Your task to perform on an android device: see sites visited before in the chrome app Image 0: 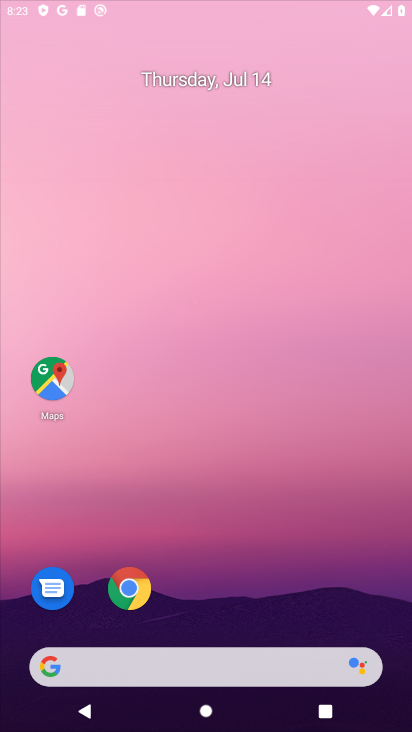
Step 0: click (252, 157)
Your task to perform on an android device: see sites visited before in the chrome app Image 1: 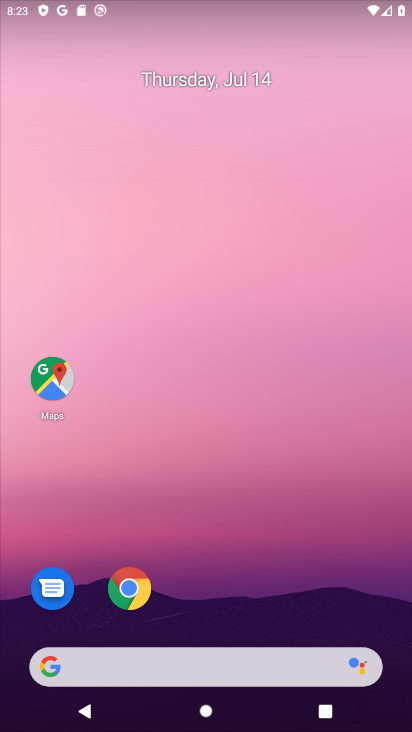
Step 1: drag from (247, 670) to (196, 246)
Your task to perform on an android device: see sites visited before in the chrome app Image 2: 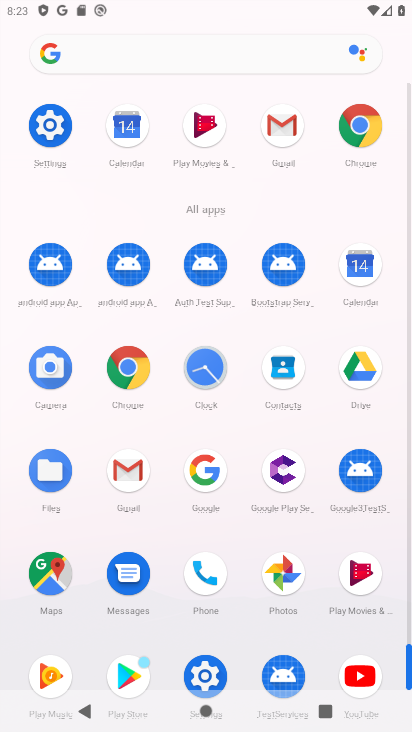
Step 2: click (374, 132)
Your task to perform on an android device: see sites visited before in the chrome app Image 3: 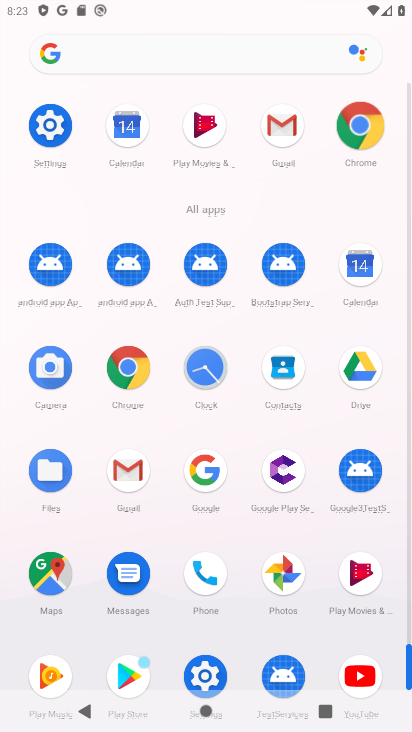
Step 3: click (372, 132)
Your task to perform on an android device: see sites visited before in the chrome app Image 4: 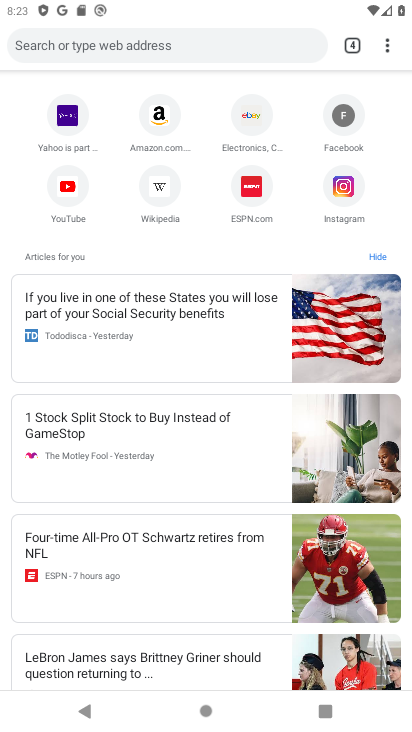
Step 4: task complete